Your task to perform on an android device: check android version Image 0: 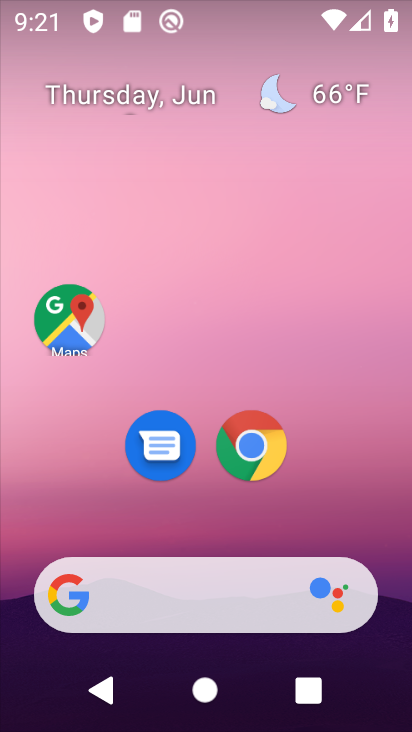
Step 0: drag from (197, 526) to (166, 59)
Your task to perform on an android device: check android version Image 1: 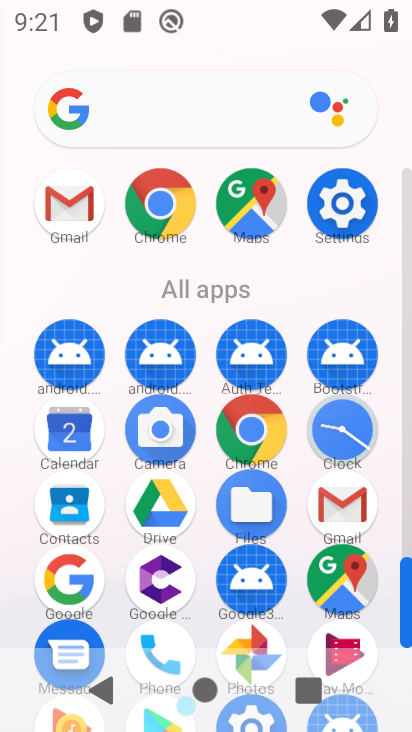
Step 1: click (333, 205)
Your task to perform on an android device: check android version Image 2: 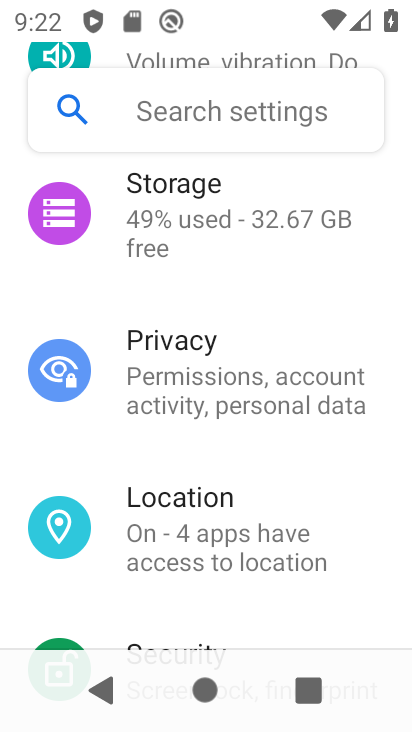
Step 2: drag from (251, 577) to (182, 196)
Your task to perform on an android device: check android version Image 3: 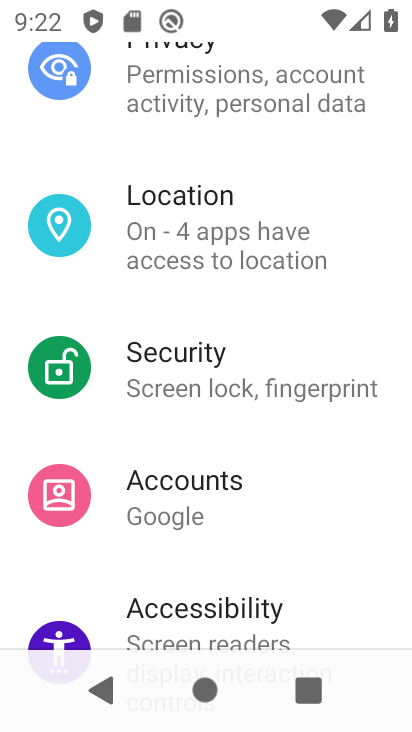
Step 3: drag from (275, 606) to (262, 204)
Your task to perform on an android device: check android version Image 4: 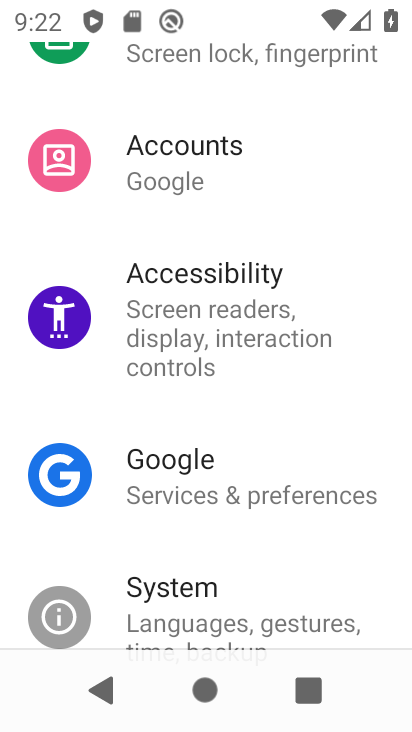
Step 4: drag from (227, 600) to (214, 249)
Your task to perform on an android device: check android version Image 5: 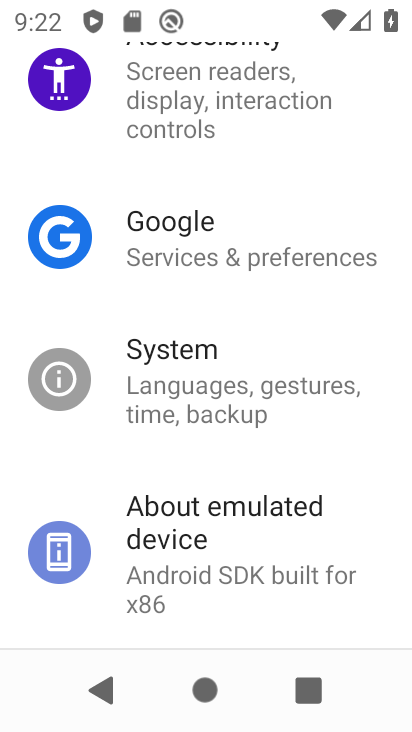
Step 5: click (149, 578)
Your task to perform on an android device: check android version Image 6: 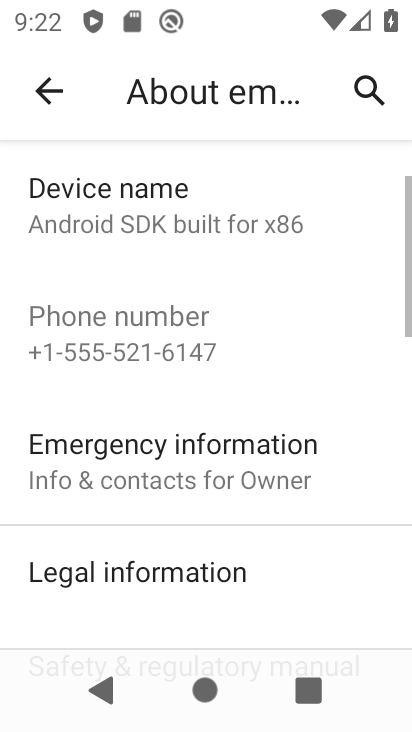
Step 6: drag from (174, 576) to (192, 221)
Your task to perform on an android device: check android version Image 7: 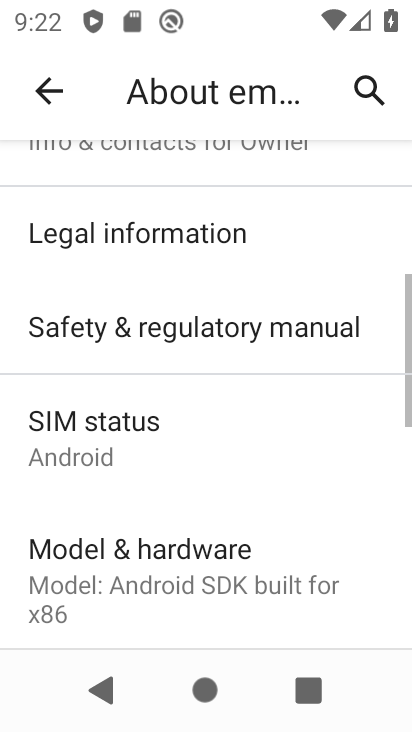
Step 7: drag from (206, 530) to (186, 259)
Your task to perform on an android device: check android version Image 8: 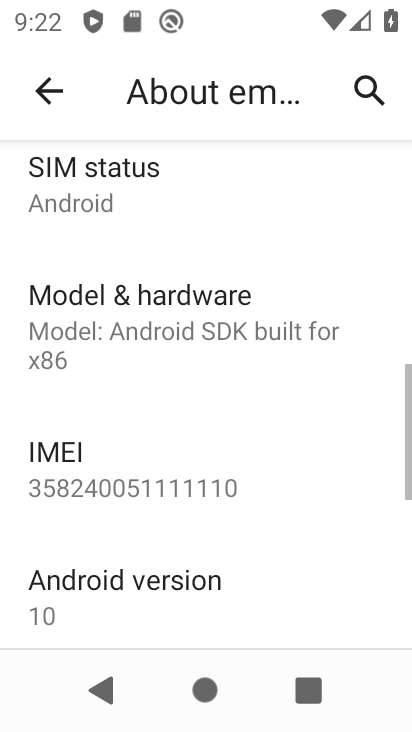
Step 8: click (163, 581)
Your task to perform on an android device: check android version Image 9: 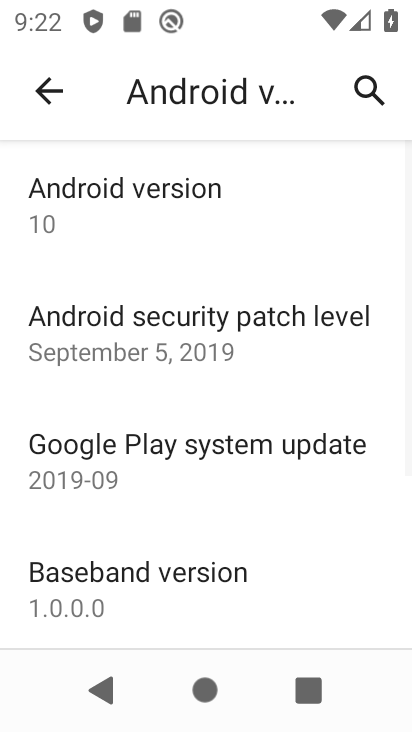
Step 9: click (147, 211)
Your task to perform on an android device: check android version Image 10: 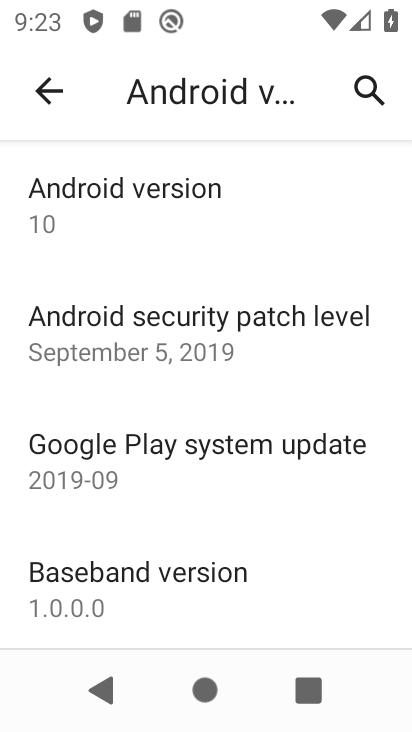
Step 10: task complete